Your task to perform on an android device: Open network settings Image 0: 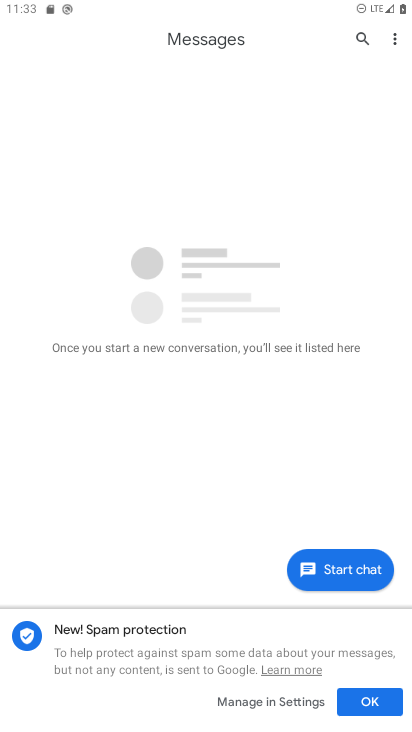
Step 0: press home button
Your task to perform on an android device: Open network settings Image 1: 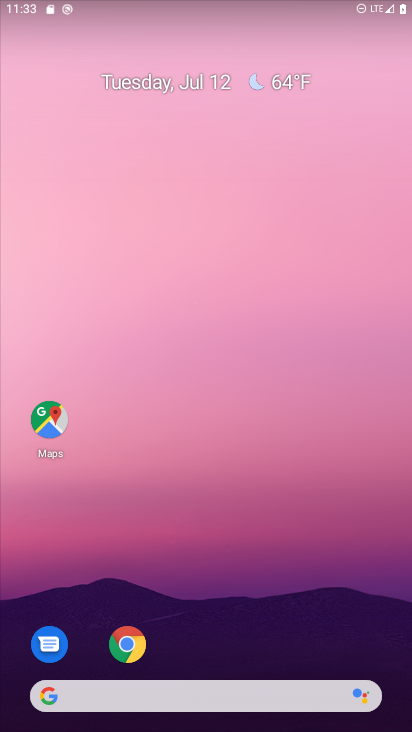
Step 1: drag from (205, 640) to (210, 234)
Your task to perform on an android device: Open network settings Image 2: 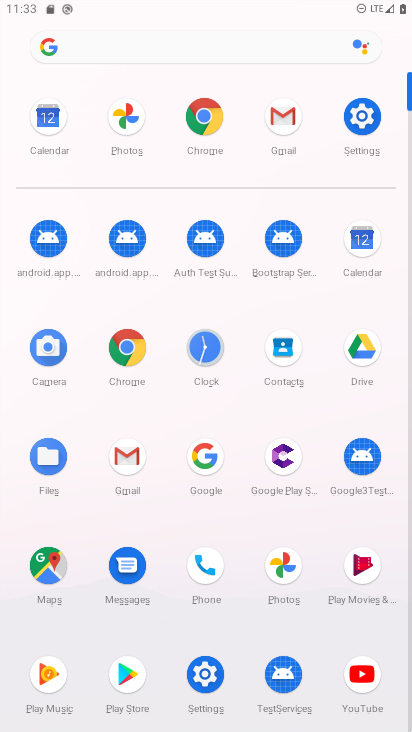
Step 2: click (351, 126)
Your task to perform on an android device: Open network settings Image 3: 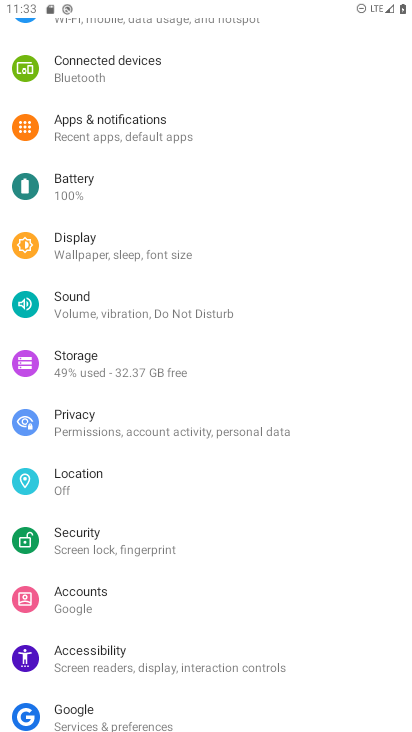
Step 3: drag from (154, 225) to (142, 452)
Your task to perform on an android device: Open network settings Image 4: 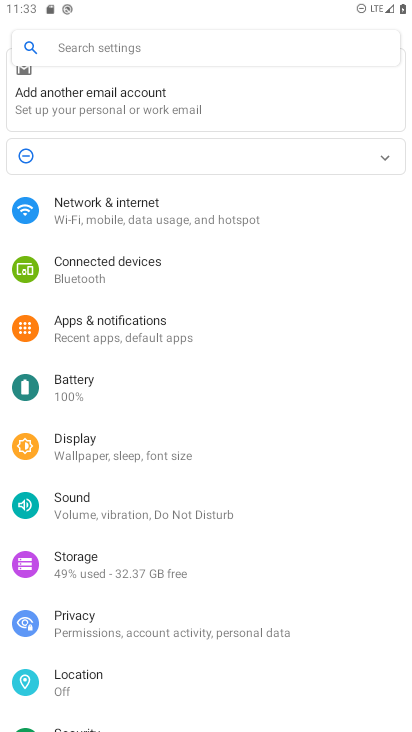
Step 4: click (145, 215)
Your task to perform on an android device: Open network settings Image 5: 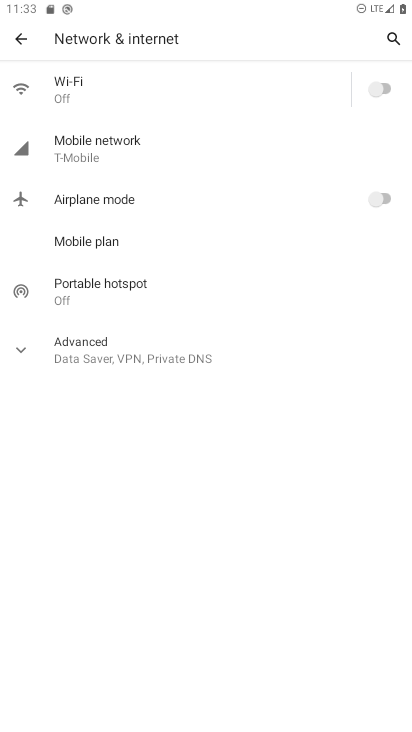
Step 5: task complete